Your task to perform on an android device: add a contact Image 0: 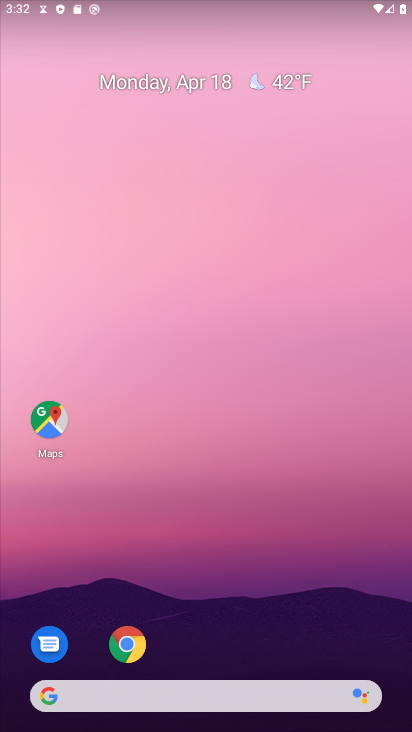
Step 0: drag from (284, 632) to (261, 209)
Your task to perform on an android device: add a contact Image 1: 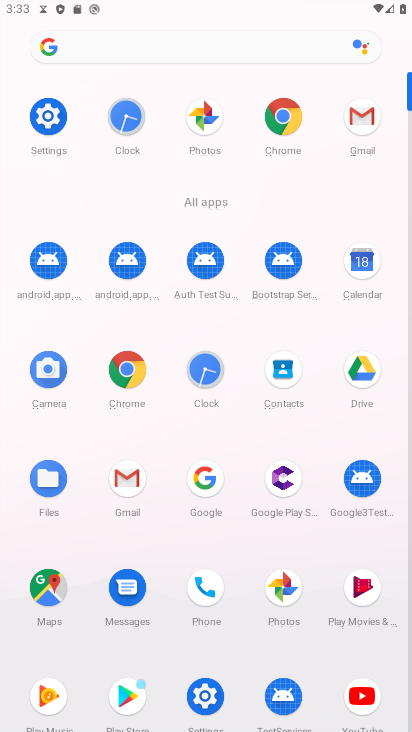
Step 1: click (280, 372)
Your task to perform on an android device: add a contact Image 2: 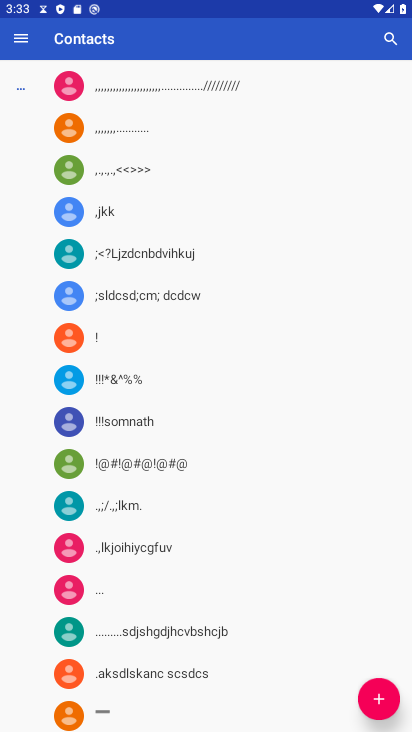
Step 2: click (378, 691)
Your task to perform on an android device: add a contact Image 3: 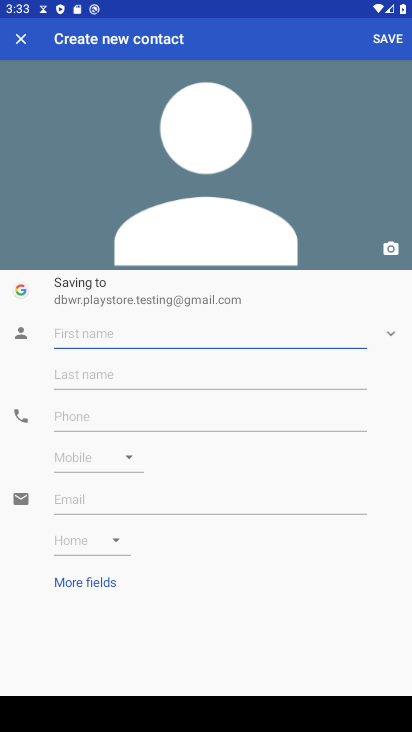
Step 3: type "ertyjhh"
Your task to perform on an android device: add a contact Image 4: 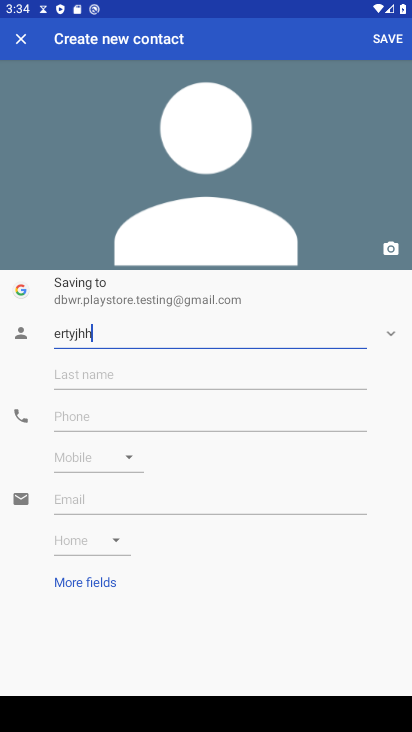
Step 4: click (90, 411)
Your task to perform on an android device: add a contact Image 5: 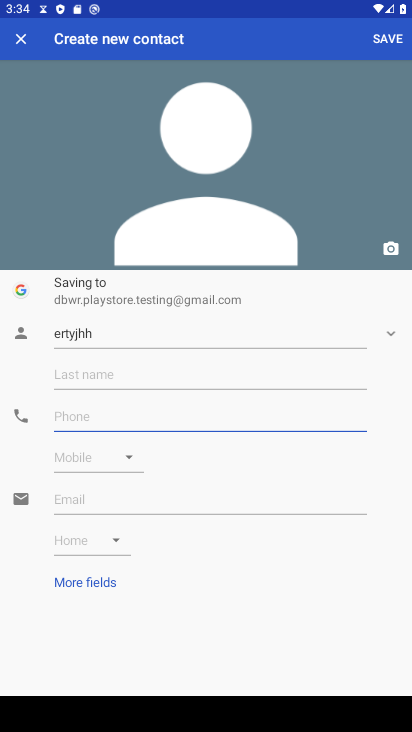
Step 5: type "87634509856"
Your task to perform on an android device: add a contact Image 6: 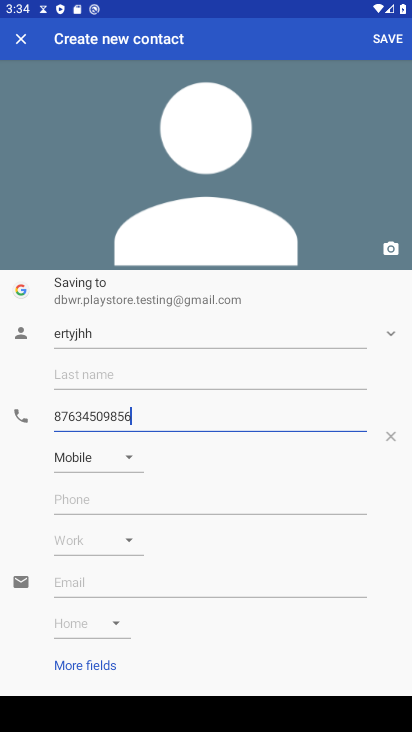
Step 6: click (375, 43)
Your task to perform on an android device: add a contact Image 7: 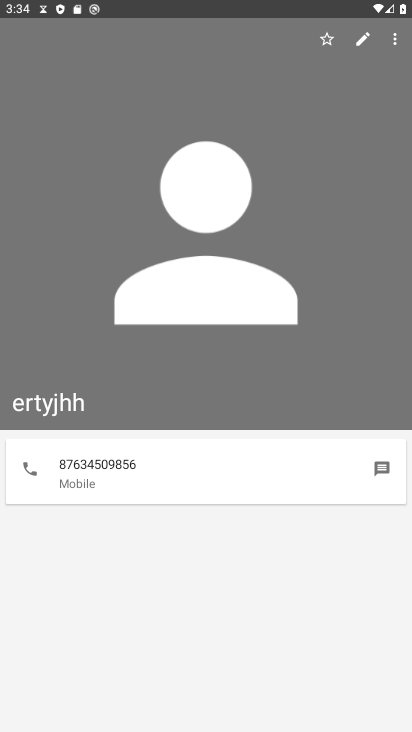
Step 7: task complete